Your task to perform on an android device: turn on improve location accuracy Image 0: 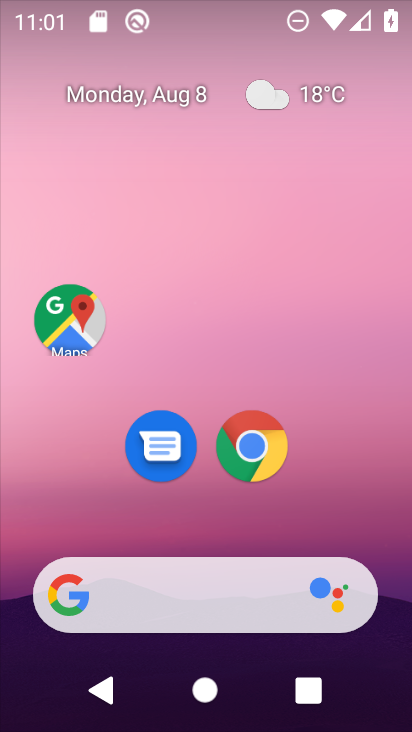
Step 0: drag from (394, 602) to (356, 167)
Your task to perform on an android device: turn on improve location accuracy Image 1: 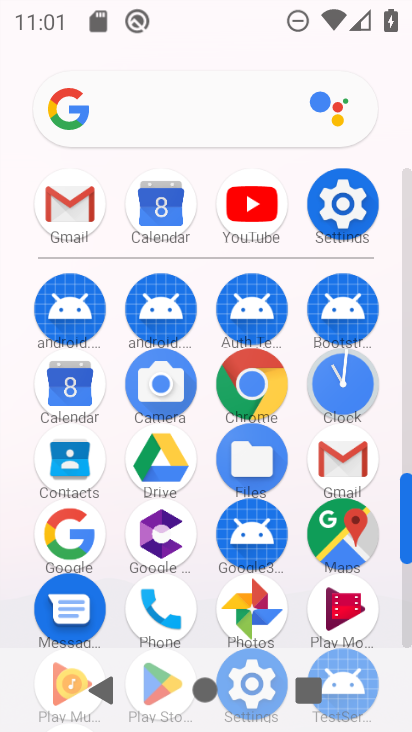
Step 1: click (406, 623)
Your task to perform on an android device: turn on improve location accuracy Image 2: 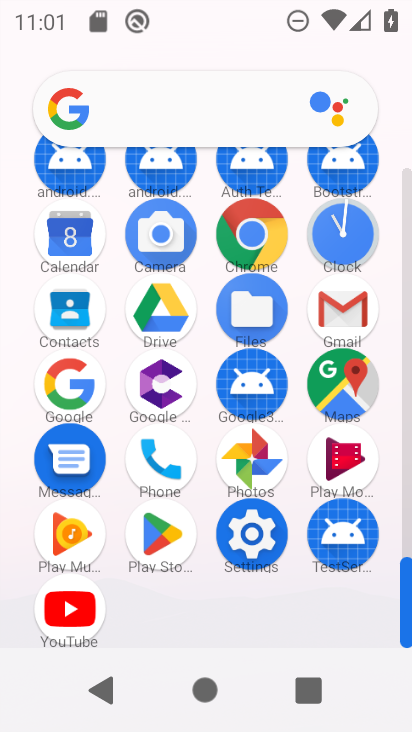
Step 2: click (250, 528)
Your task to perform on an android device: turn on improve location accuracy Image 3: 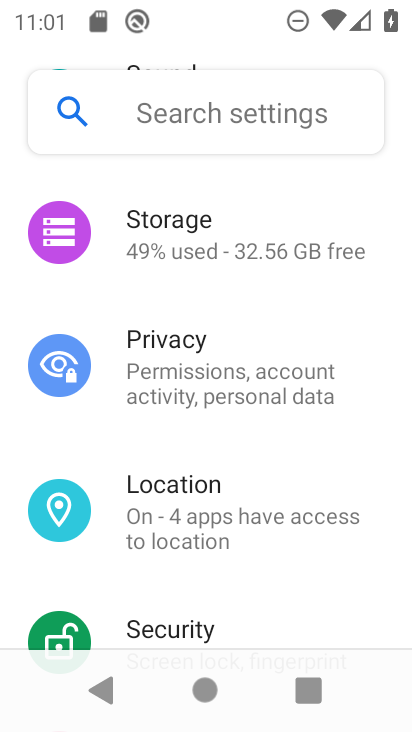
Step 3: click (153, 511)
Your task to perform on an android device: turn on improve location accuracy Image 4: 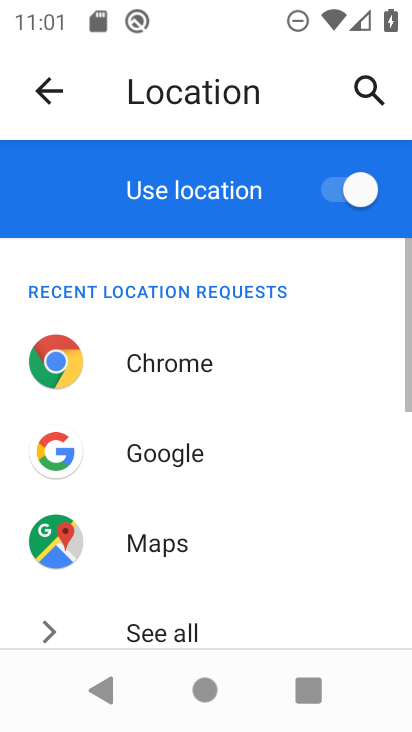
Step 4: drag from (312, 612) to (290, 339)
Your task to perform on an android device: turn on improve location accuracy Image 5: 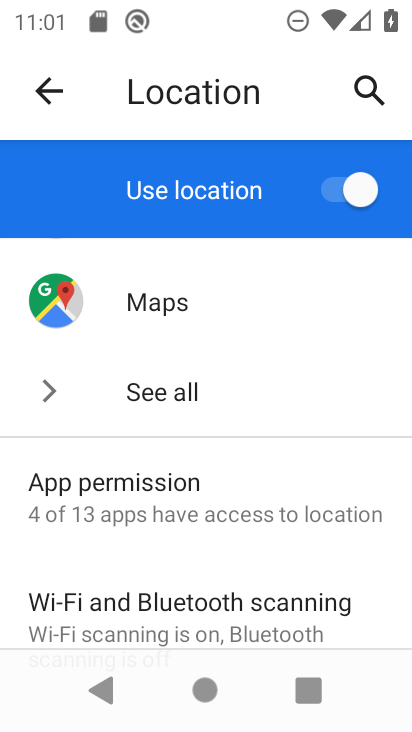
Step 5: drag from (278, 596) to (284, 378)
Your task to perform on an android device: turn on improve location accuracy Image 6: 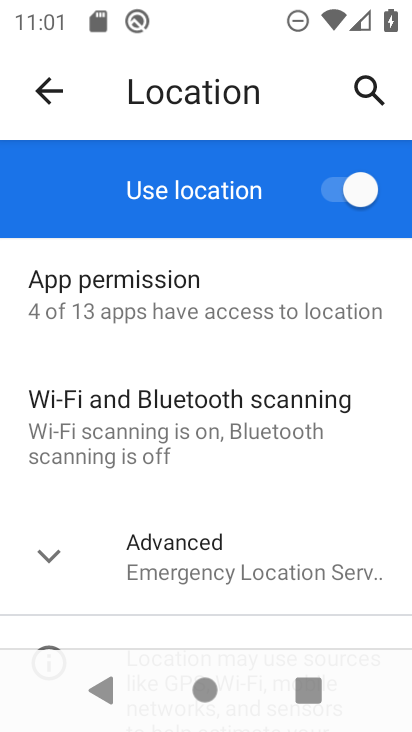
Step 6: click (52, 557)
Your task to perform on an android device: turn on improve location accuracy Image 7: 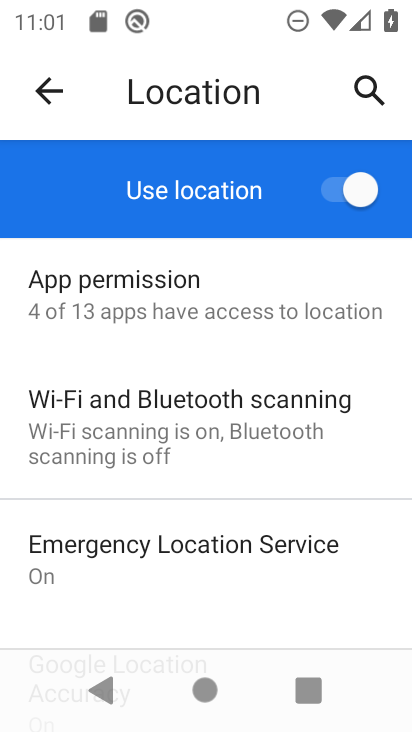
Step 7: drag from (256, 580) to (260, 353)
Your task to perform on an android device: turn on improve location accuracy Image 8: 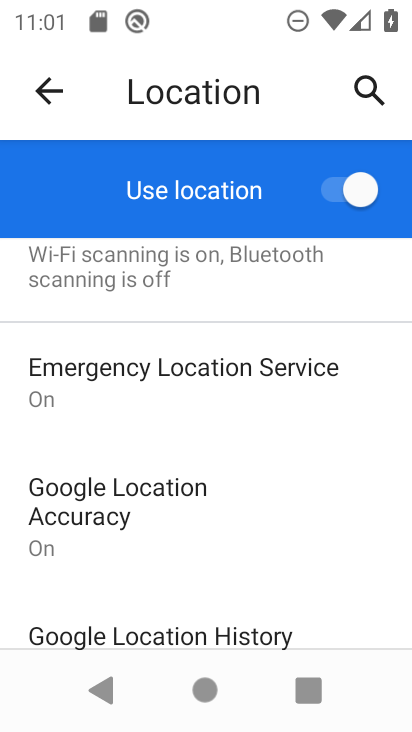
Step 8: click (83, 519)
Your task to perform on an android device: turn on improve location accuracy Image 9: 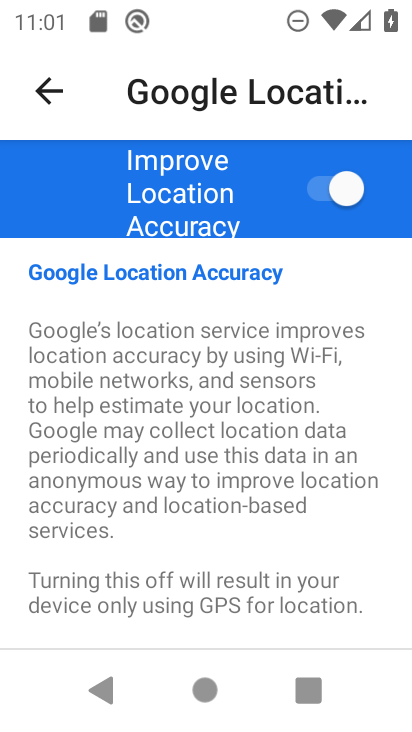
Step 9: task complete